Your task to perform on an android device: open device folders in google photos Image 0: 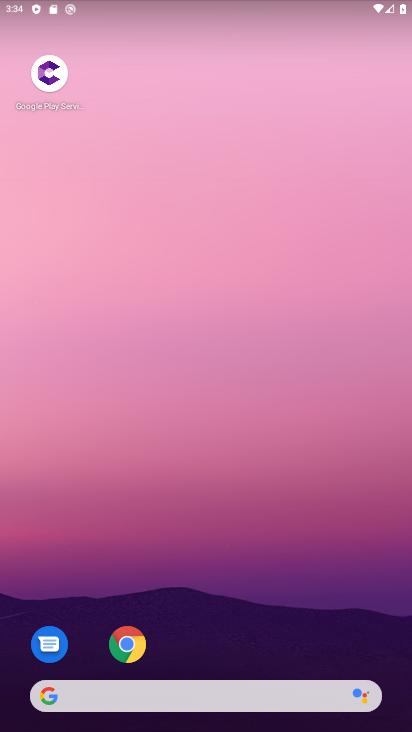
Step 0: drag from (320, 630) to (299, 156)
Your task to perform on an android device: open device folders in google photos Image 1: 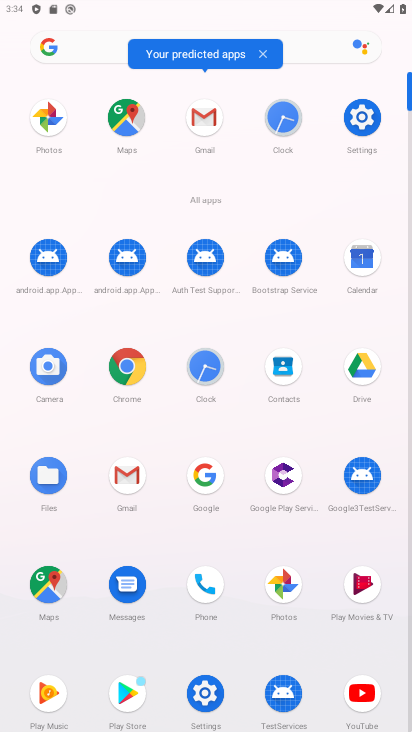
Step 1: click (41, 113)
Your task to perform on an android device: open device folders in google photos Image 2: 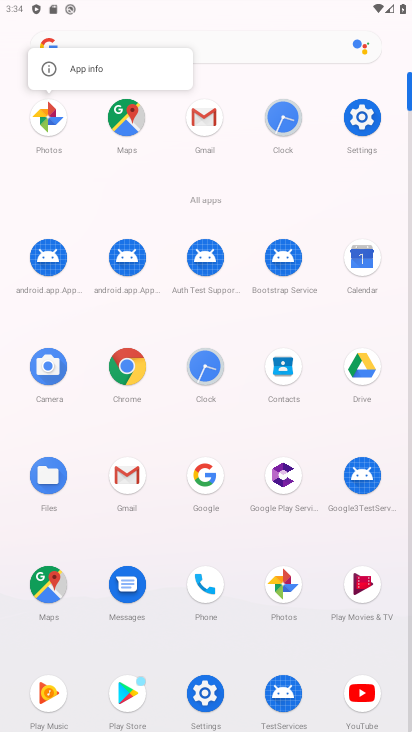
Step 2: click (43, 127)
Your task to perform on an android device: open device folders in google photos Image 3: 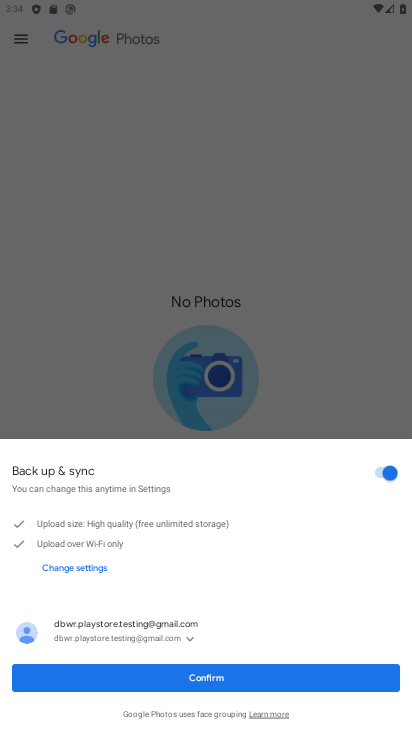
Step 3: click (208, 683)
Your task to perform on an android device: open device folders in google photos Image 4: 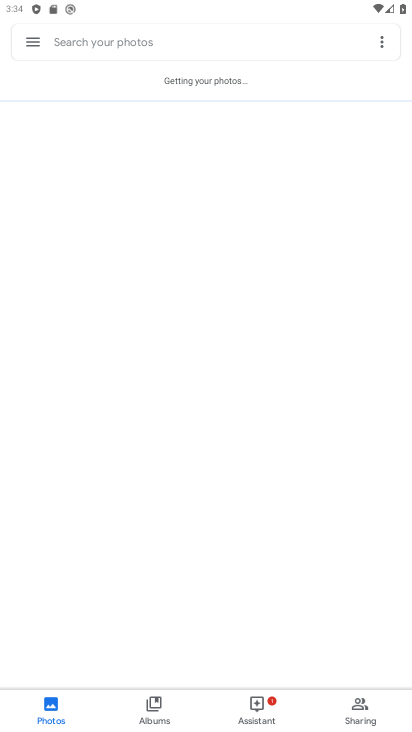
Step 4: drag from (379, 44) to (27, 42)
Your task to perform on an android device: open device folders in google photos Image 5: 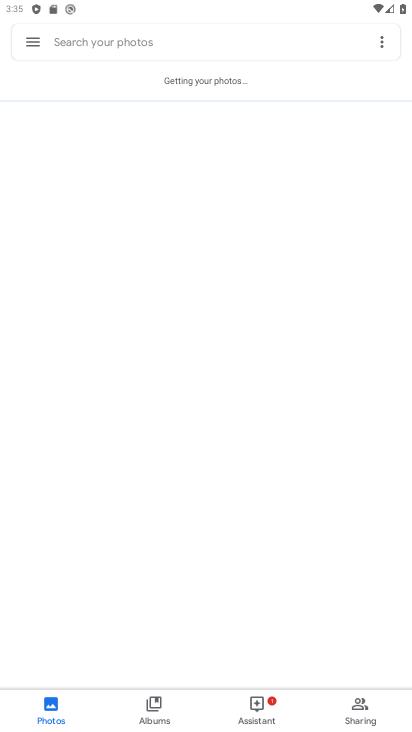
Step 5: click (28, 40)
Your task to perform on an android device: open device folders in google photos Image 6: 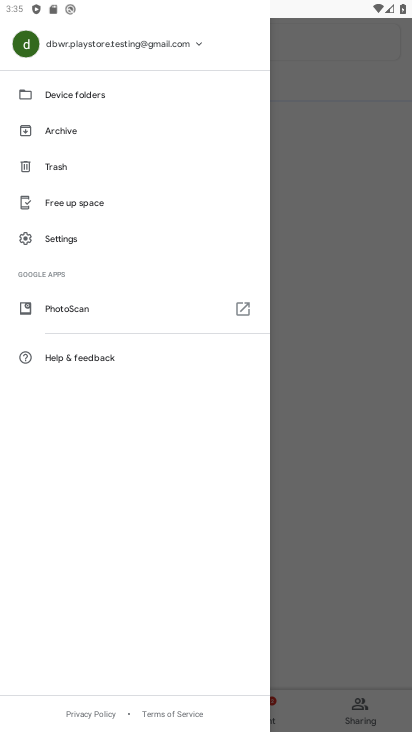
Step 6: click (85, 95)
Your task to perform on an android device: open device folders in google photos Image 7: 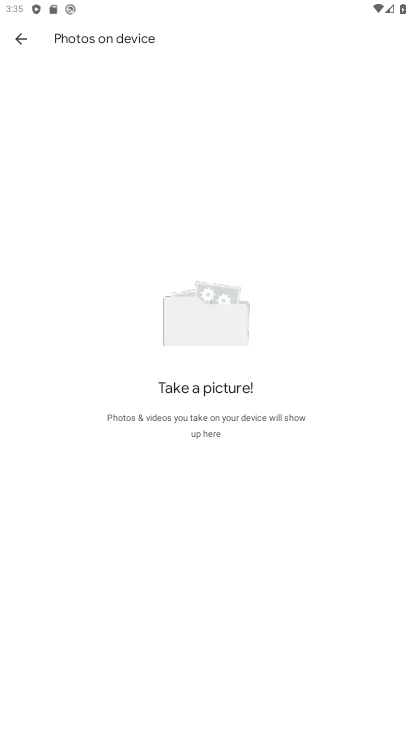
Step 7: task complete